Your task to perform on an android device: Go to Google maps Image 0: 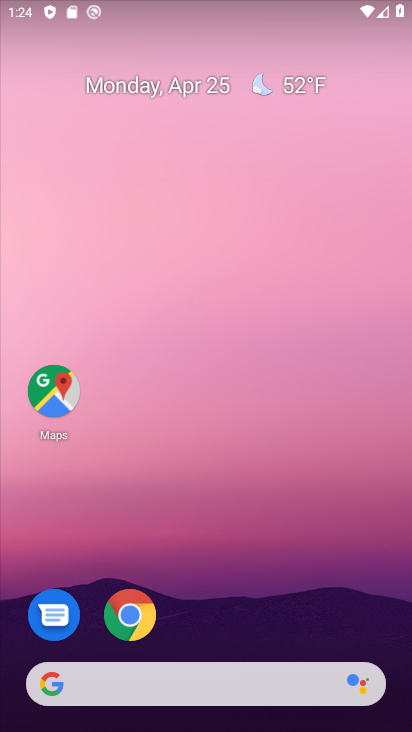
Step 0: click (50, 390)
Your task to perform on an android device: Go to Google maps Image 1: 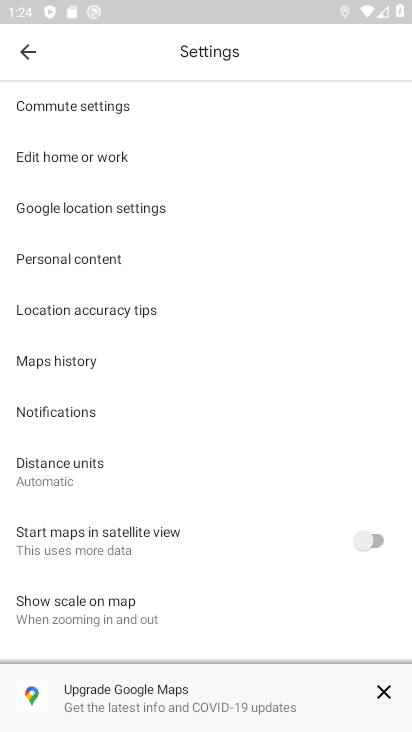
Step 1: task complete